Your task to perform on an android device: Turn on the flashlight Image 0: 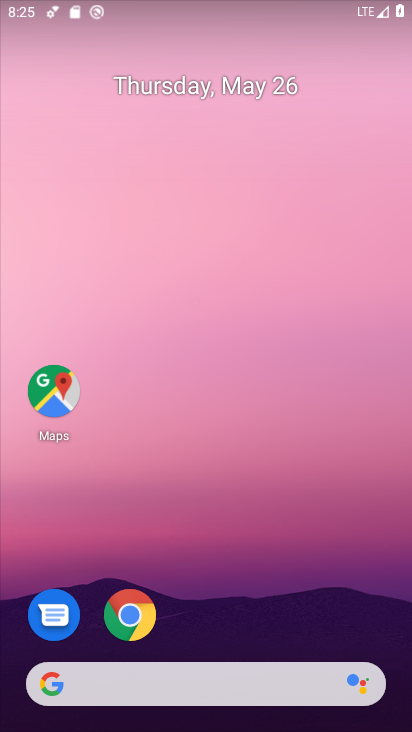
Step 0: drag from (220, 623) to (243, 326)
Your task to perform on an android device: Turn on the flashlight Image 1: 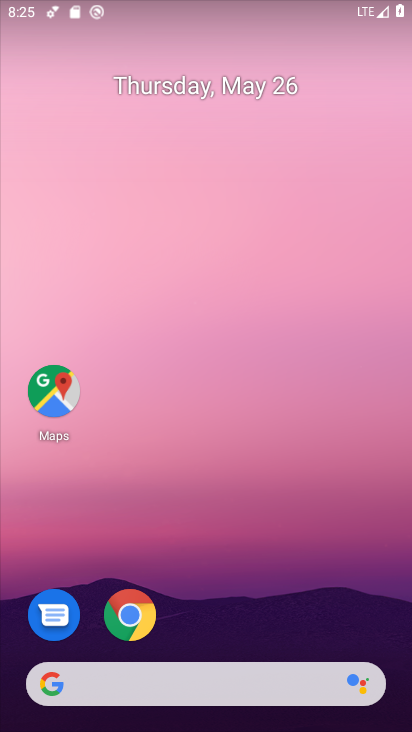
Step 1: drag from (239, 617) to (307, 232)
Your task to perform on an android device: Turn on the flashlight Image 2: 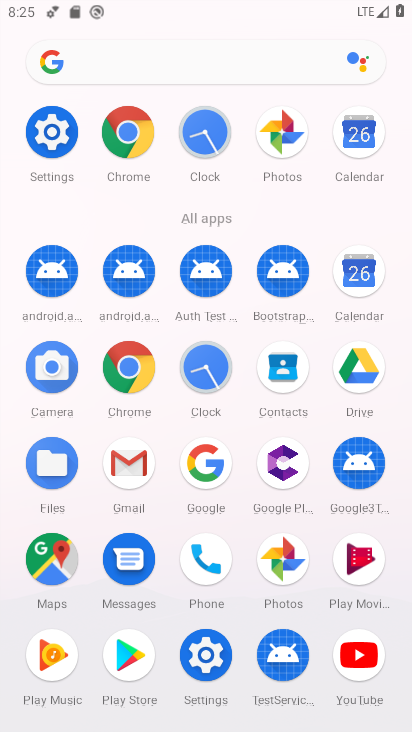
Step 2: click (43, 134)
Your task to perform on an android device: Turn on the flashlight Image 3: 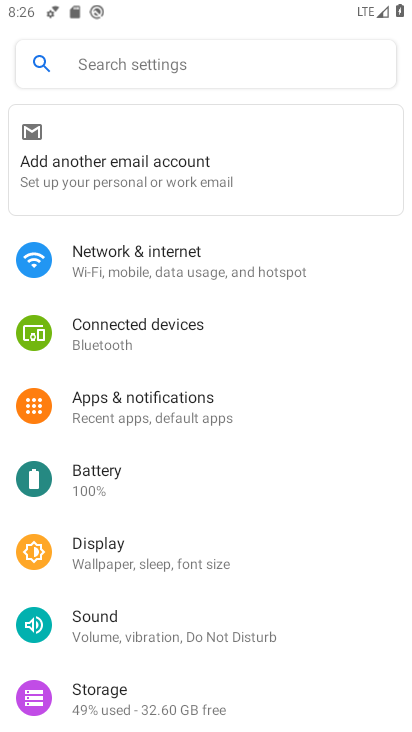
Step 3: task complete